Your task to perform on an android device: turn on location history Image 0: 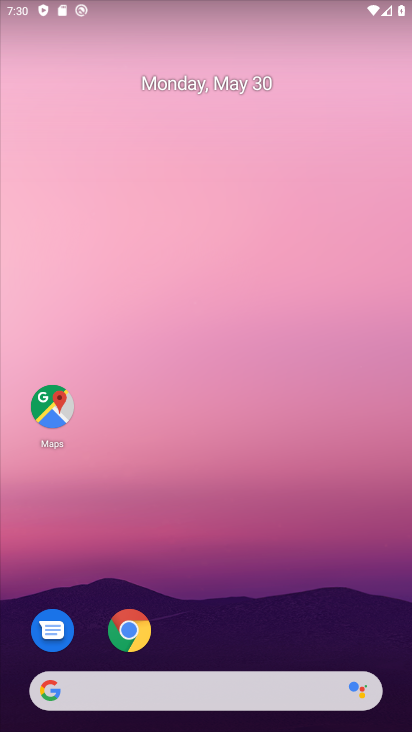
Step 0: click (60, 406)
Your task to perform on an android device: turn on location history Image 1: 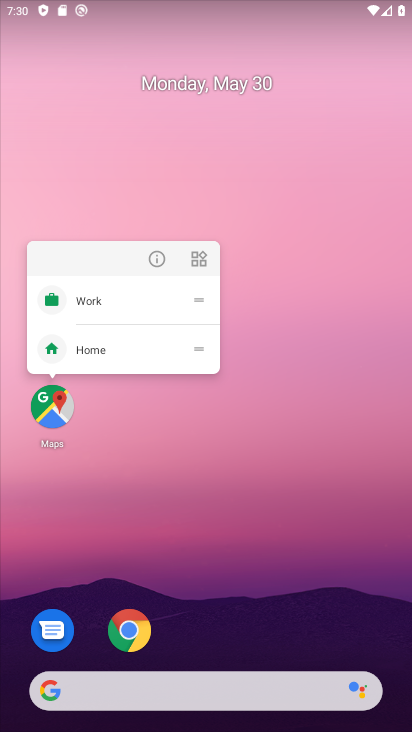
Step 1: click (51, 409)
Your task to perform on an android device: turn on location history Image 2: 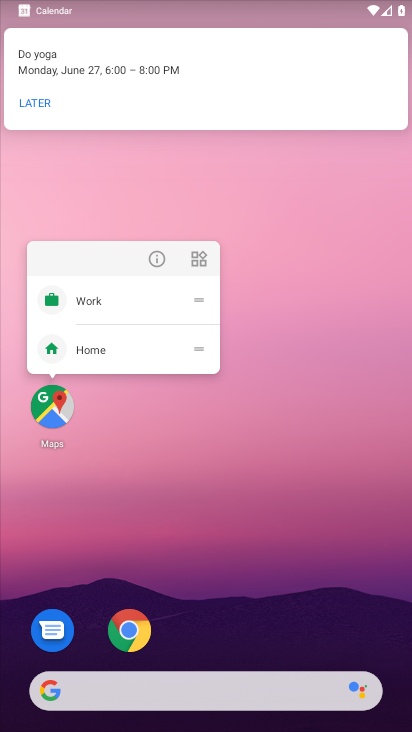
Step 2: click (48, 417)
Your task to perform on an android device: turn on location history Image 3: 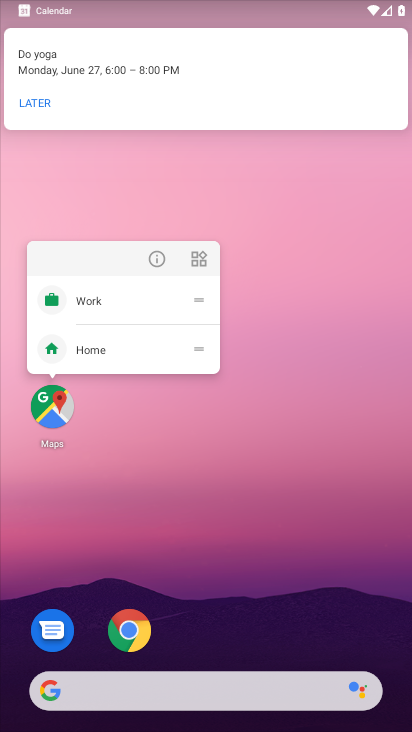
Step 3: click (48, 417)
Your task to perform on an android device: turn on location history Image 4: 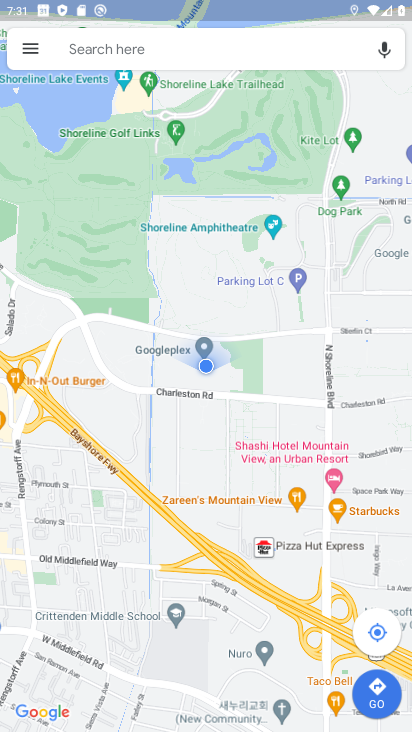
Step 4: click (35, 48)
Your task to perform on an android device: turn on location history Image 5: 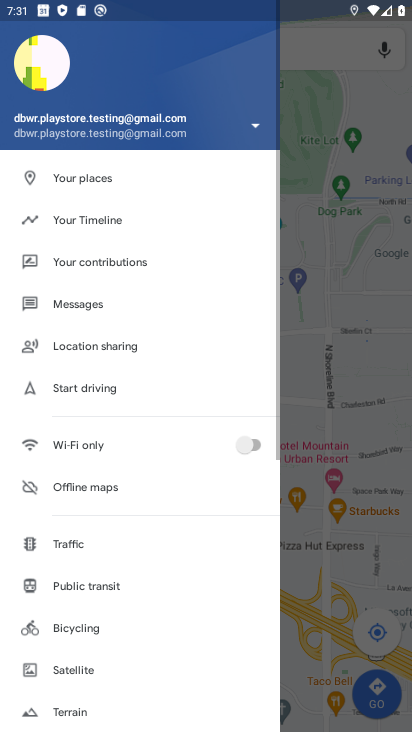
Step 5: click (72, 214)
Your task to perform on an android device: turn on location history Image 6: 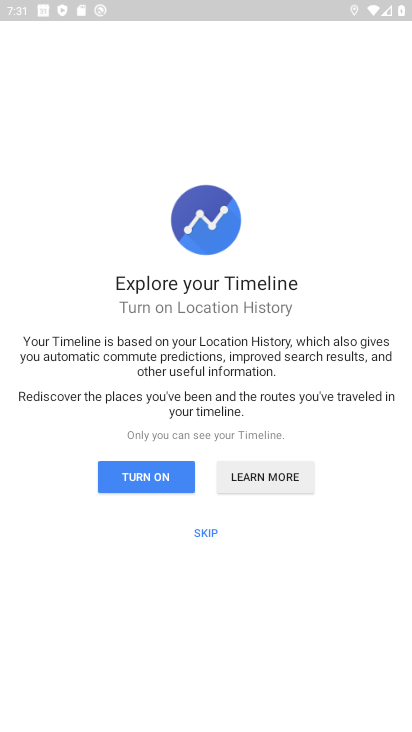
Step 6: click (205, 538)
Your task to perform on an android device: turn on location history Image 7: 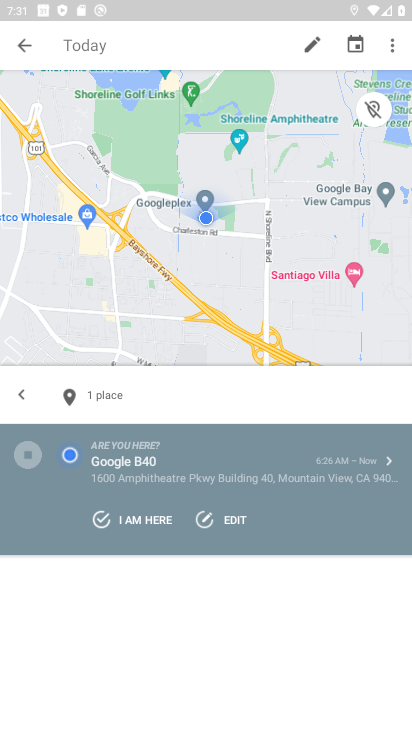
Step 7: click (392, 44)
Your task to perform on an android device: turn on location history Image 8: 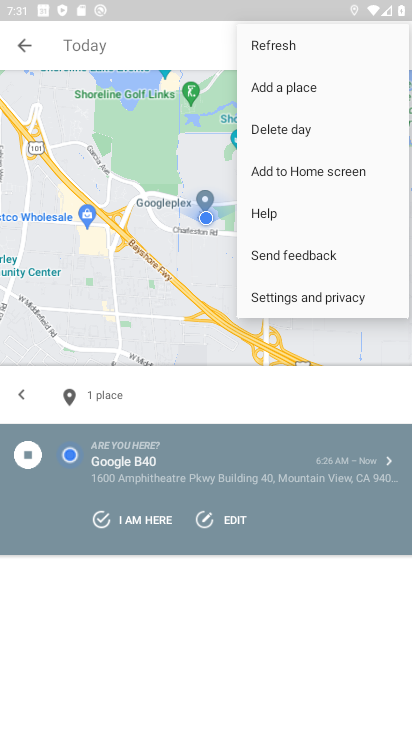
Step 8: click (290, 295)
Your task to perform on an android device: turn on location history Image 9: 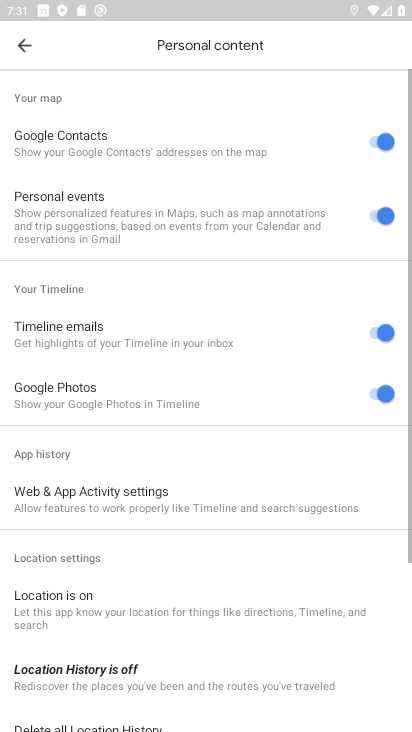
Step 9: drag from (238, 617) to (310, 294)
Your task to perform on an android device: turn on location history Image 10: 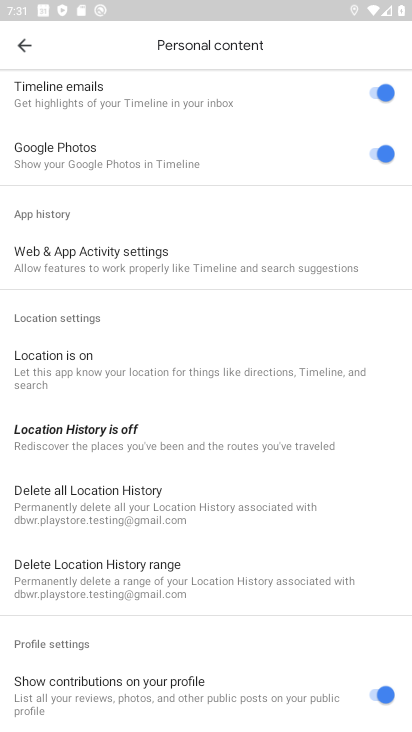
Step 10: click (83, 438)
Your task to perform on an android device: turn on location history Image 11: 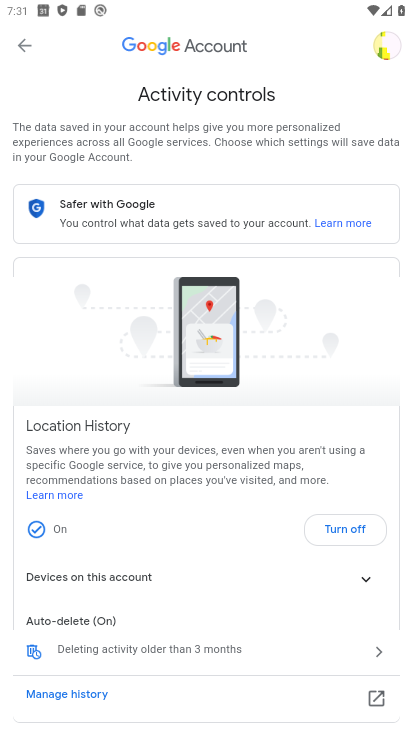
Step 11: click (58, 526)
Your task to perform on an android device: turn on location history Image 12: 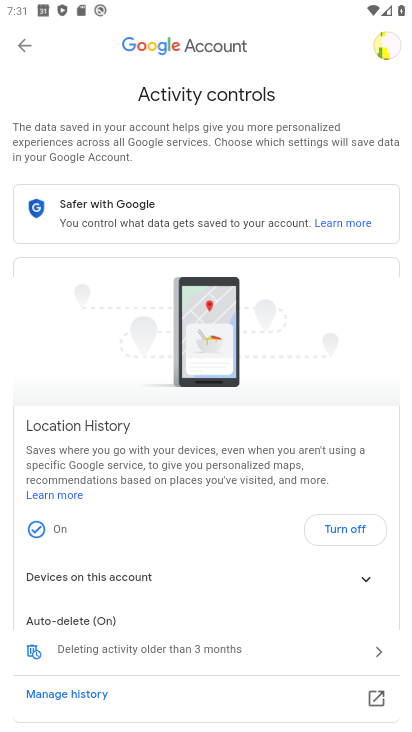
Step 12: click (31, 525)
Your task to perform on an android device: turn on location history Image 13: 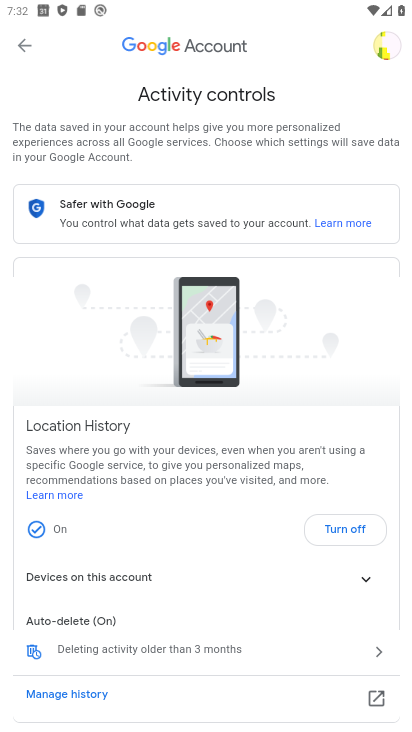
Step 13: task complete